Your task to perform on an android device: change the upload size in google photos Image 0: 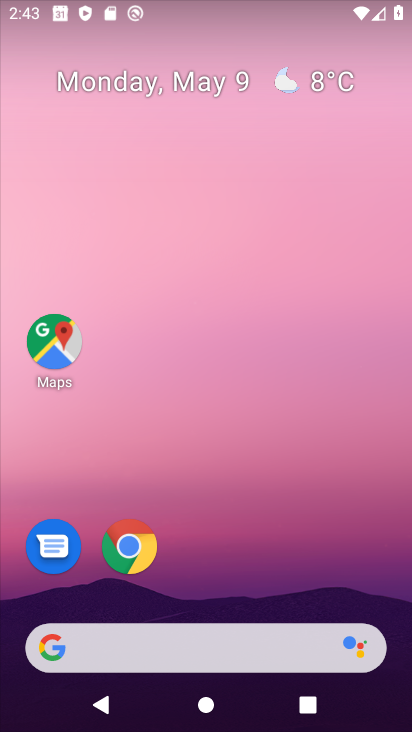
Step 0: drag from (285, 571) to (212, 19)
Your task to perform on an android device: change the upload size in google photos Image 1: 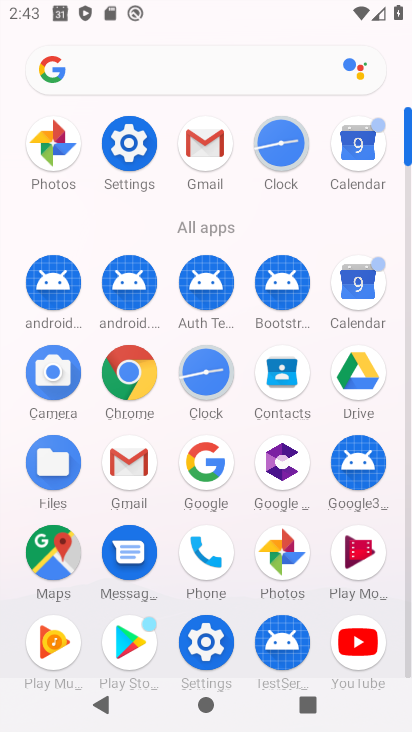
Step 1: click (285, 539)
Your task to perform on an android device: change the upload size in google photos Image 2: 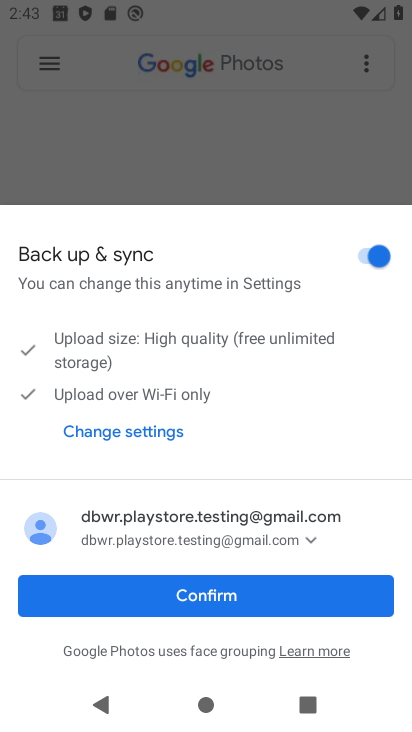
Step 2: click (255, 592)
Your task to perform on an android device: change the upload size in google photos Image 3: 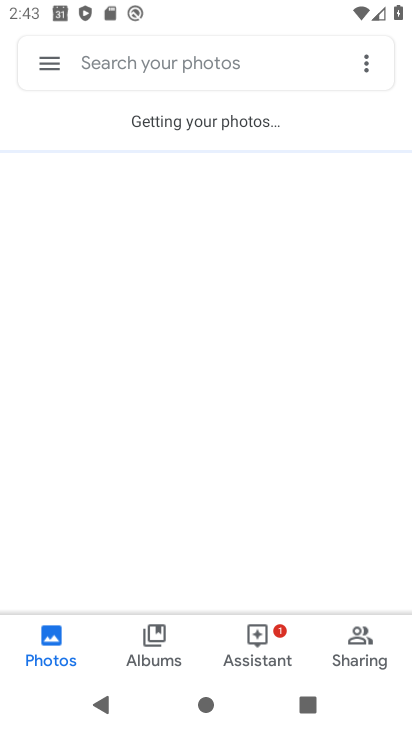
Step 3: click (50, 64)
Your task to perform on an android device: change the upload size in google photos Image 4: 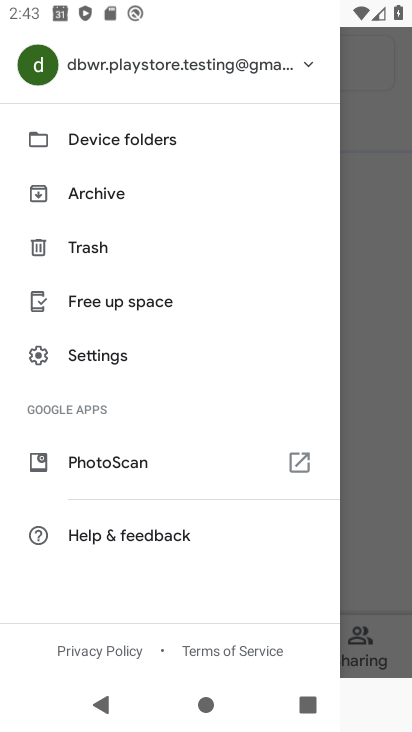
Step 4: click (135, 358)
Your task to perform on an android device: change the upload size in google photos Image 5: 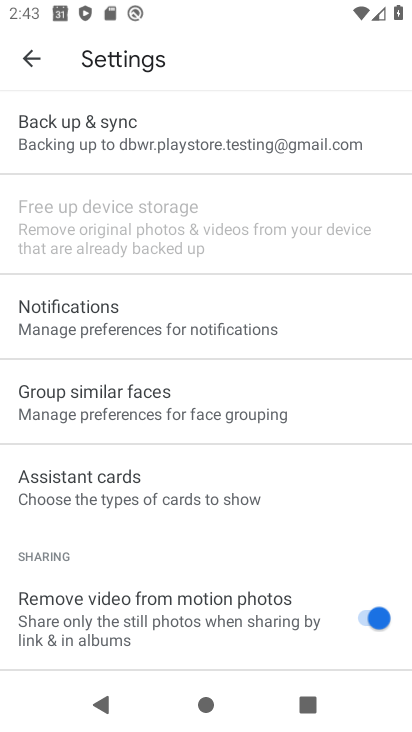
Step 5: click (245, 126)
Your task to perform on an android device: change the upload size in google photos Image 6: 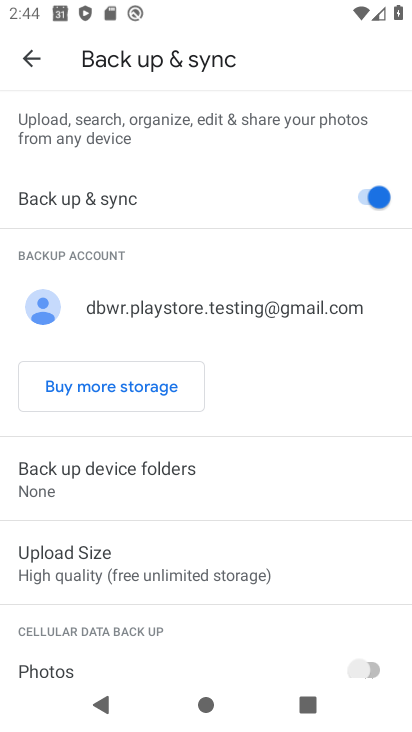
Step 6: click (211, 571)
Your task to perform on an android device: change the upload size in google photos Image 7: 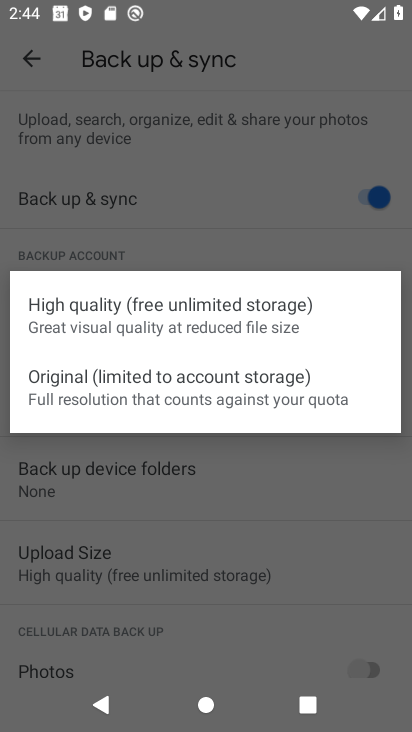
Step 7: click (232, 378)
Your task to perform on an android device: change the upload size in google photos Image 8: 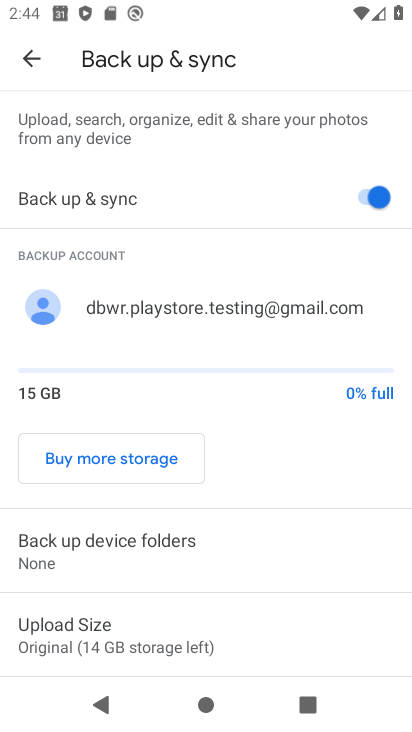
Step 8: task complete